Your task to perform on an android device: toggle show notifications on the lock screen Image 0: 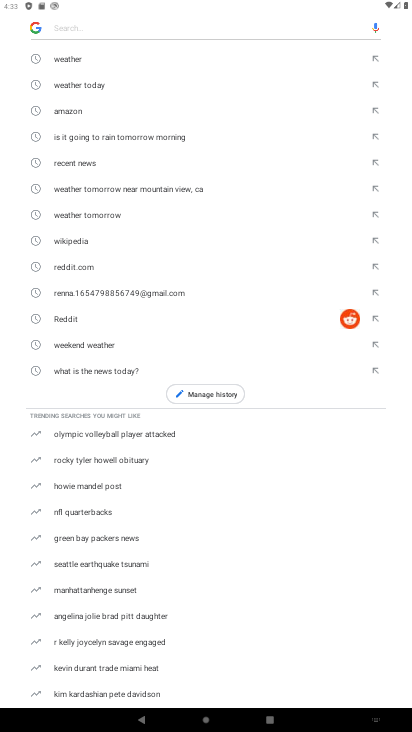
Step 0: press home button
Your task to perform on an android device: toggle show notifications on the lock screen Image 1: 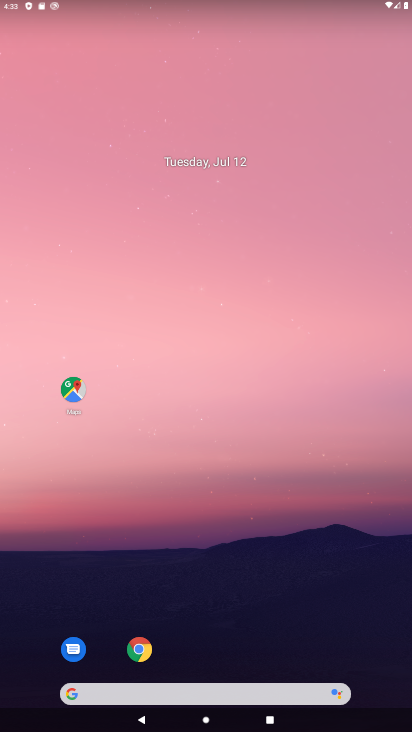
Step 1: drag from (236, 686) to (195, 95)
Your task to perform on an android device: toggle show notifications on the lock screen Image 2: 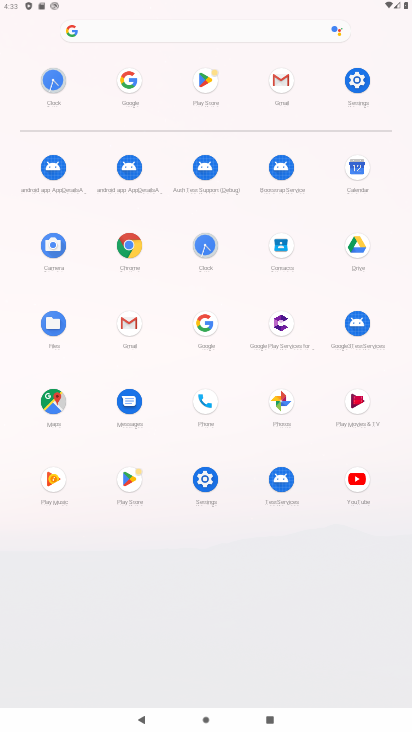
Step 2: click (358, 79)
Your task to perform on an android device: toggle show notifications on the lock screen Image 3: 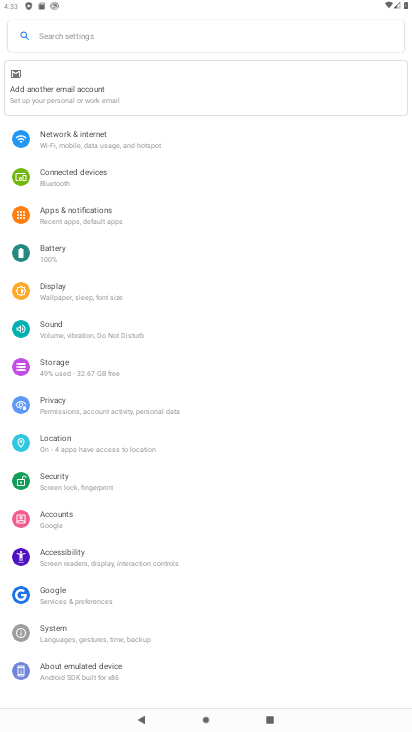
Step 3: click (63, 208)
Your task to perform on an android device: toggle show notifications on the lock screen Image 4: 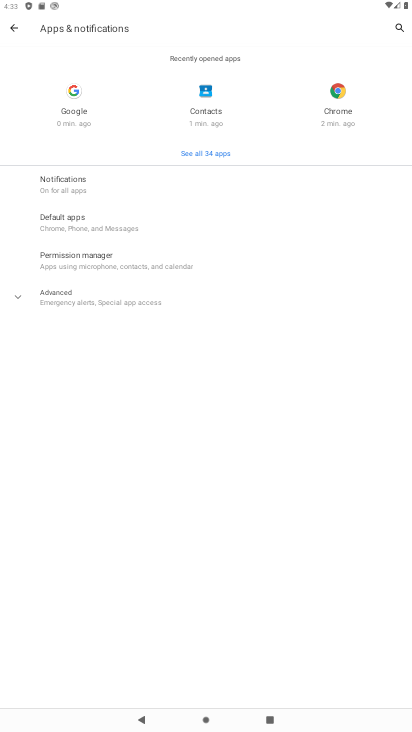
Step 4: click (62, 188)
Your task to perform on an android device: toggle show notifications on the lock screen Image 5: 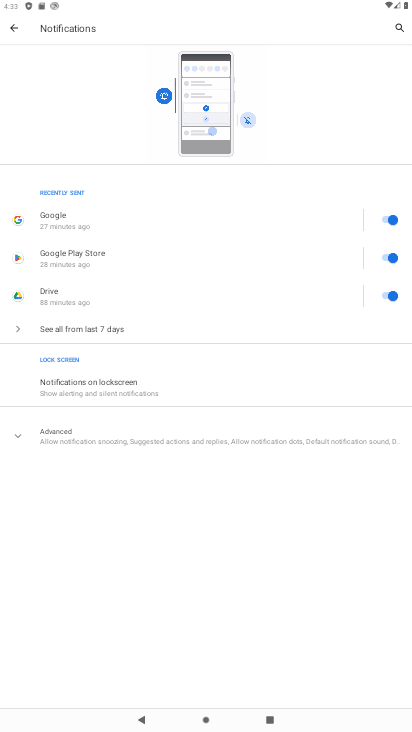
Step 5: click (114, 386)
Your task to perform on an android device: toggle show notifications on the lock screen Image 6: 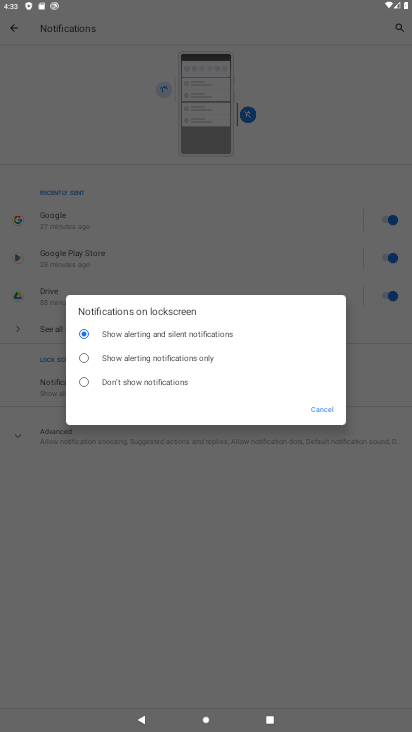
Step 6: click (85, 385)
Your task to perform on an android device: toggle show notifications on the lock screen Image 7: 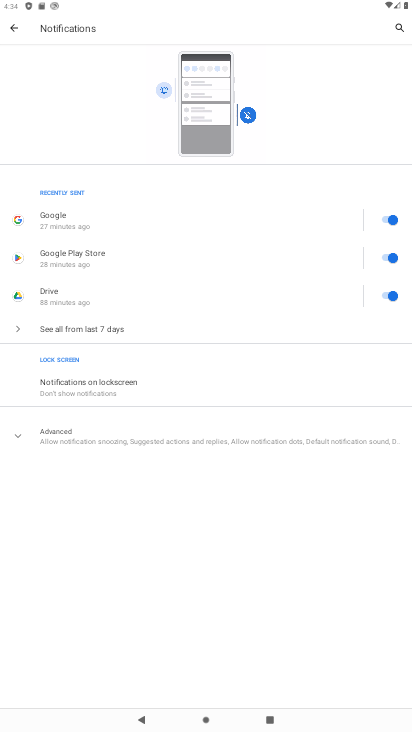
Step 7: task complete